Your task to perform on an android device: change the clock display to digital Image 0: 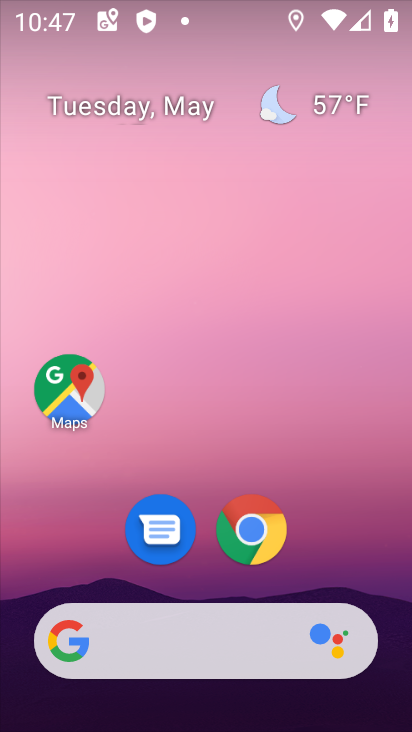
Step 0: drag from (283, 559) to (324, 35)
Your task to perform on an android device: change the clock display to digital Image 1: 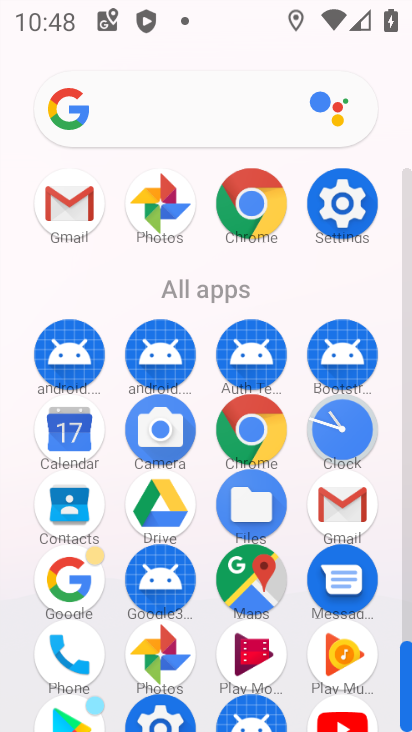
Step 1: click (334, 434)
Your task to perform on an android device: change the clock display to digital Image 2: 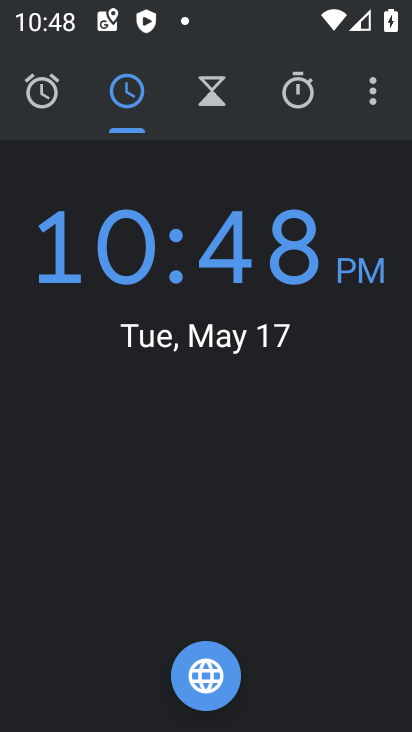
Step 2: click (390, 81)
Your task to perform on an android device: change the clock display to digital Image 3: 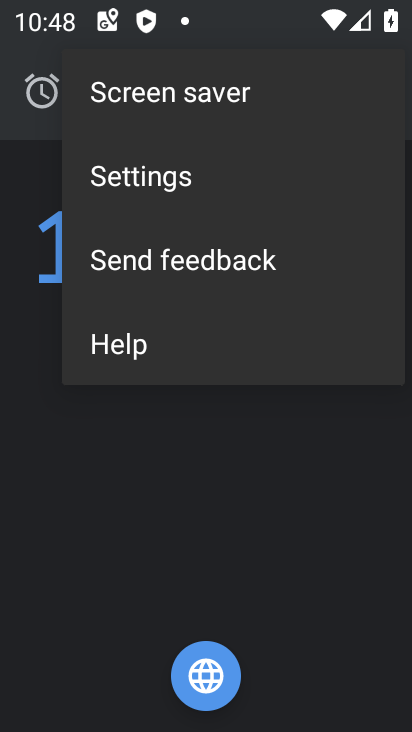
Step 3: click (144, 179)
Your task to perform on an android device: change the clock display to digital Image 4: 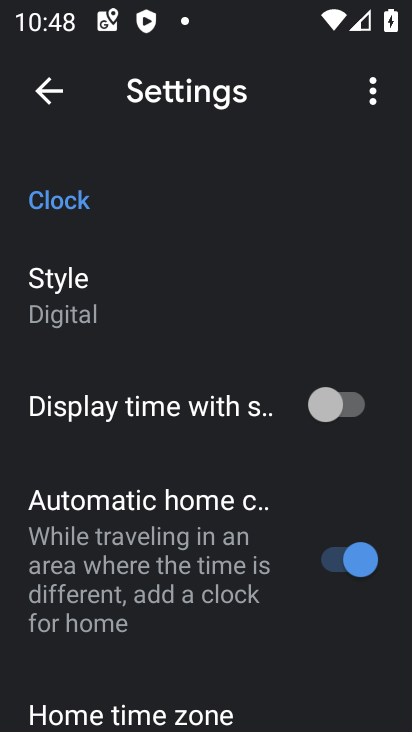
Step 4: click (166, 324)
Your task to perform on an android device: change the clock display to digital Image 5: 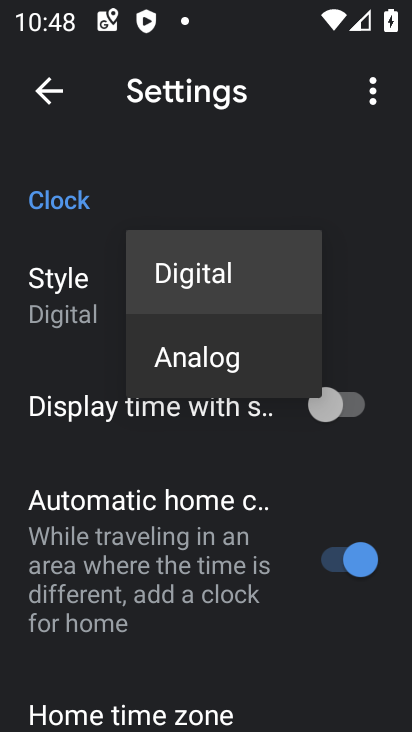
Step 5: task complete